Your task to perform on an android device: Go to battery settings Image 0: 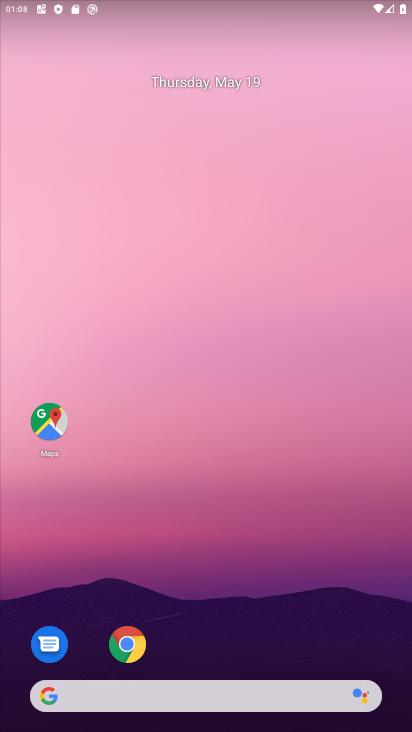
Step 0: drag from (377, 615) to (349, 85)
Your task to perform on an android device: Go to battery settings Image 1: 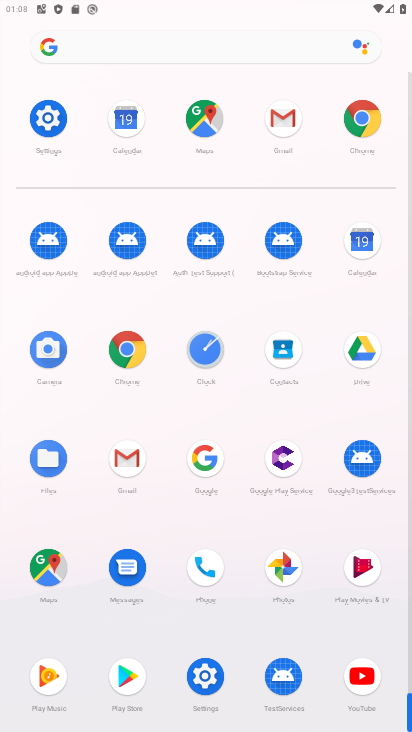
Step 1: click (200, 686)
Your task to perform on an android device: Go to battery settings Image 2: 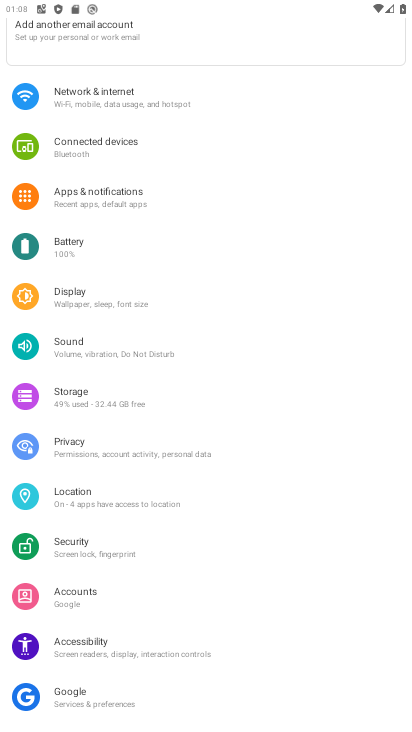
Step 2: click (101, 248)
Your task to perform on an android device: Go to battery settings Image 3: 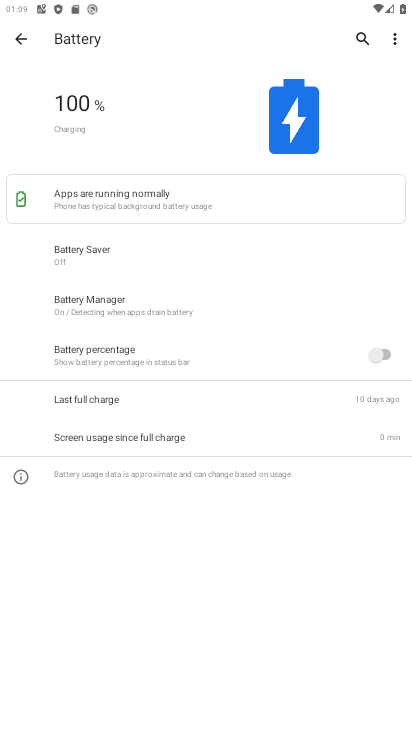
Step 3: task complete